Your task to perform on an android device: search for starred emails in the gmail app Image 0: 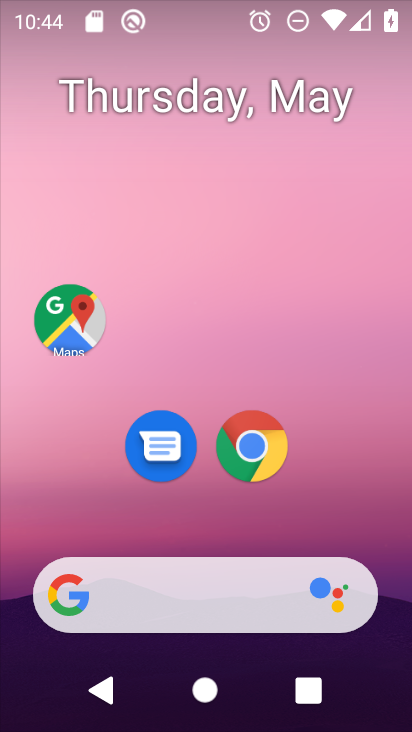
Step 0: drag from (244, 616) to (309, 123)
Your task to perform on an android device: search for starred emails in the gmail app Image 1: 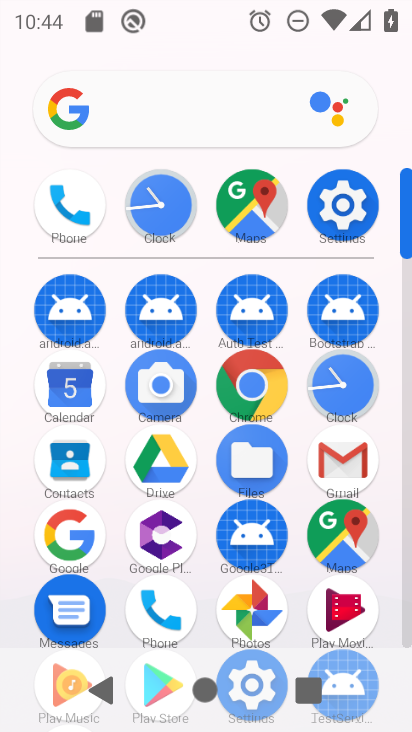
Step 1: click (355, 434)
Your task to perform on an android device: search for starred emails in the gmail app Image 2: 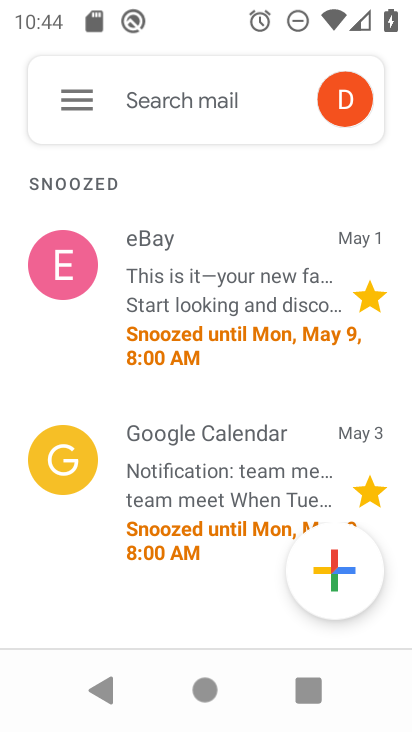
Step 2: click (78, 98)
Your task to perform on an android device: search for starred emails in the gmail app Image 3: 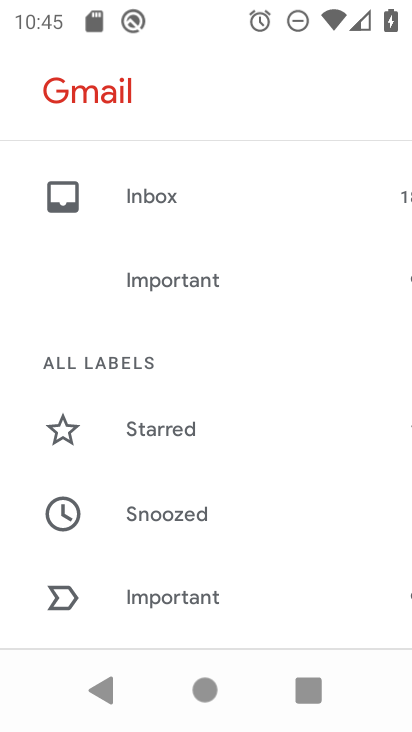
Step 3: click (137, 423)
Your task to perform on an android device: search for starred emails in the gmail app Image 4: 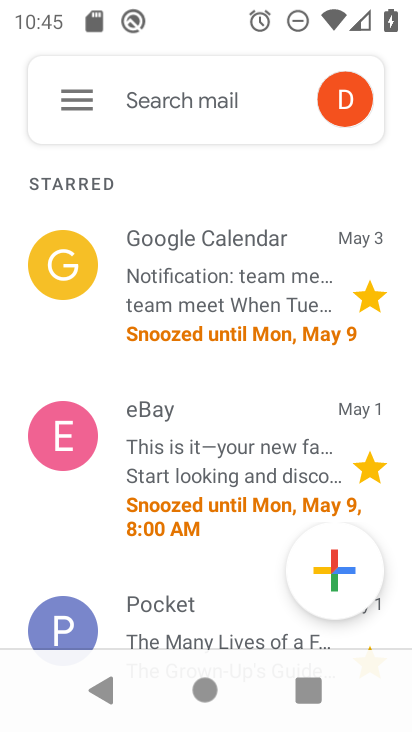
Step 4: task complete